Your task to perform on an android device: turn on showing notifications on the lock screen Image 0: 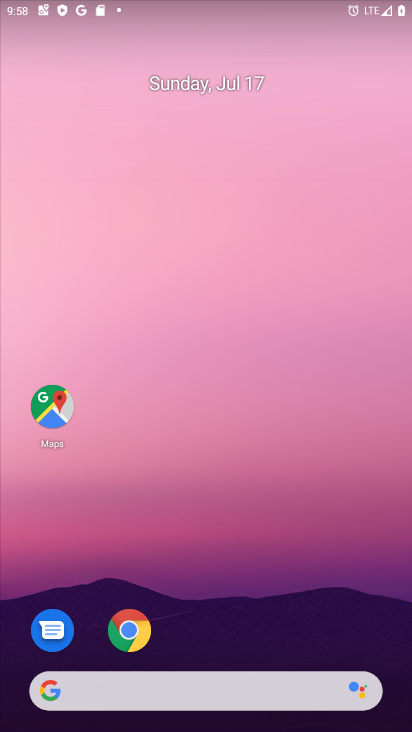
Step 0: press home button
Your task to perform on an android device: turn on showing notifications on the lock screen Image 1: 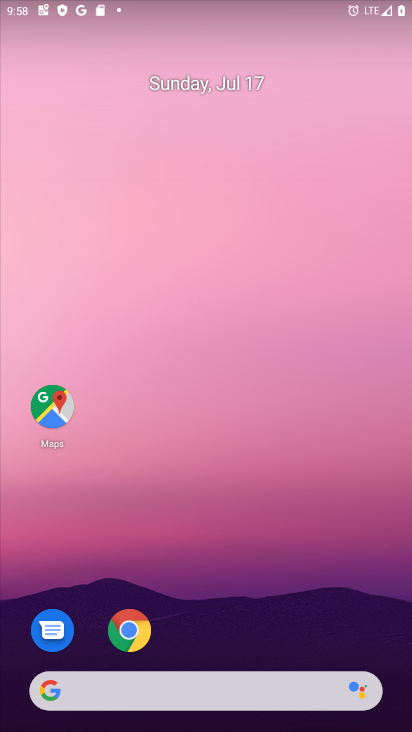
Step 1: drag from (218, 654) to (279, 156)
Your task to perform on an android device: turn on showing notifications on the lock screen Image 2: 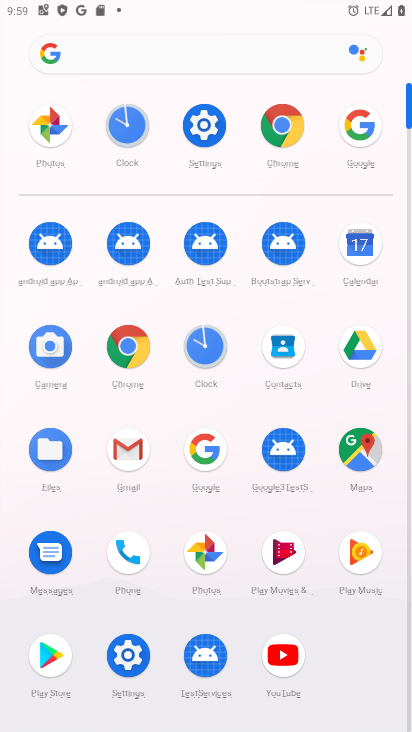
Step 2: click (199, 122)
Your task to perform on an android device: turn on showing notifications on the lock screen Image 3: 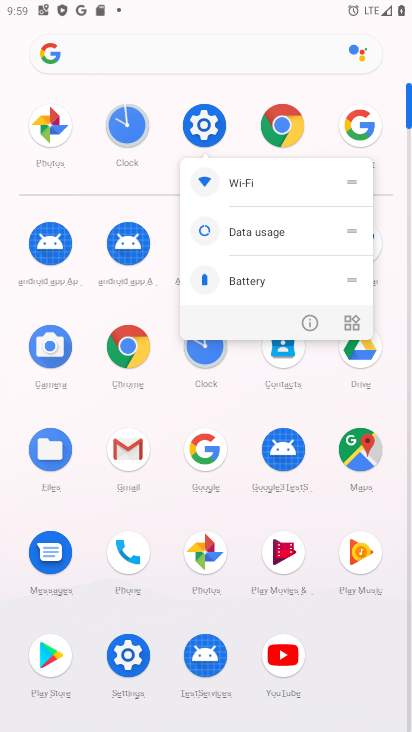
Step 3: click (203, 120)
Your task to perform on an android device: turn on showing notifications on the lock screen Image 4: 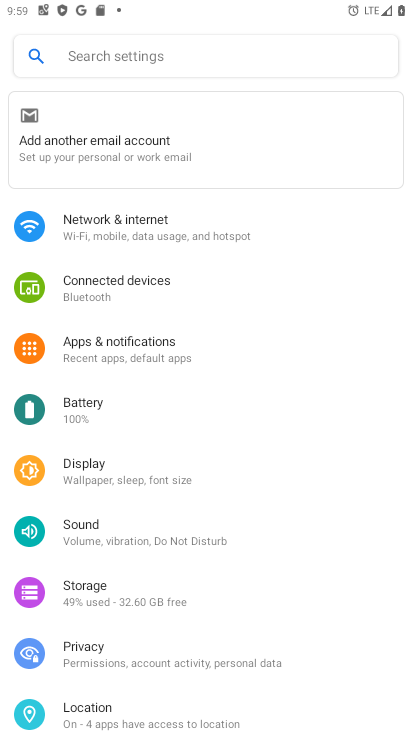
Step 4: click (149, 345)
Your task to perform on an android device: turn on showing notifications on the lock screen Image 5: 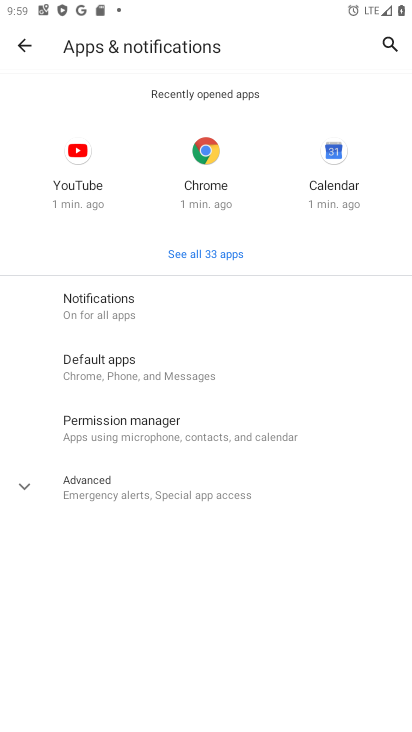
Step 5: click (155, 298)
Your task to perform on an android device: turn on showing notifications on the lock screen Image 6: 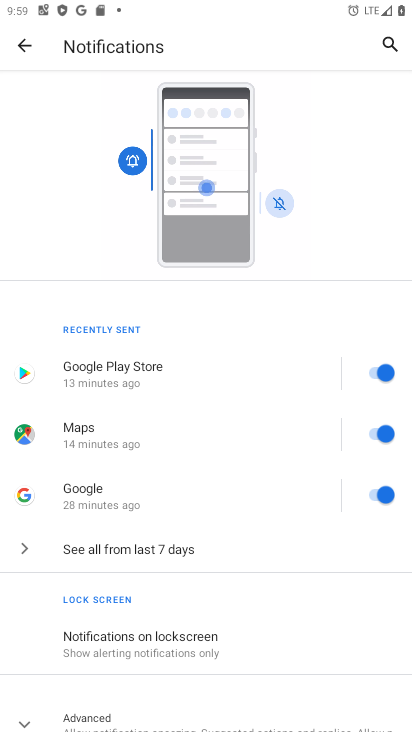
Step 6: click (234, 643)
Your task to perform on an android device: turn on showing notifications on the lock screen Image 7: 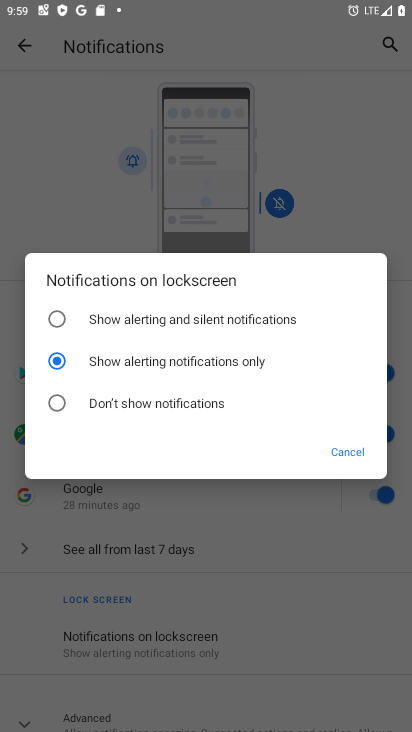
Step 7: click (52, 315)
Your task to perform on an android device: turn on showing notifications on the lock screen Image 8: 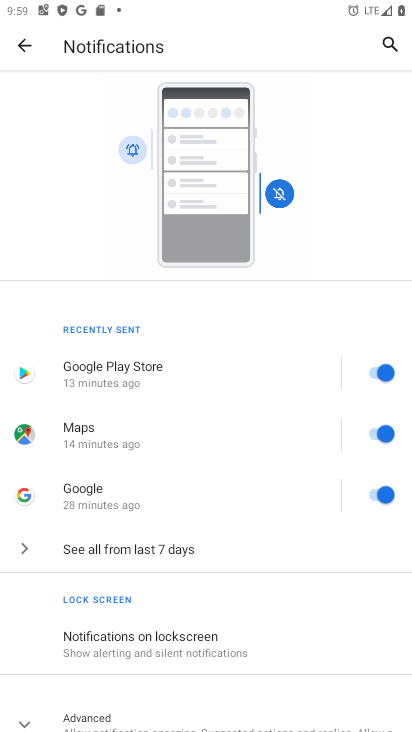
Step 8: task complete